Your task to perform on an android device: Open notification settings Image 0: 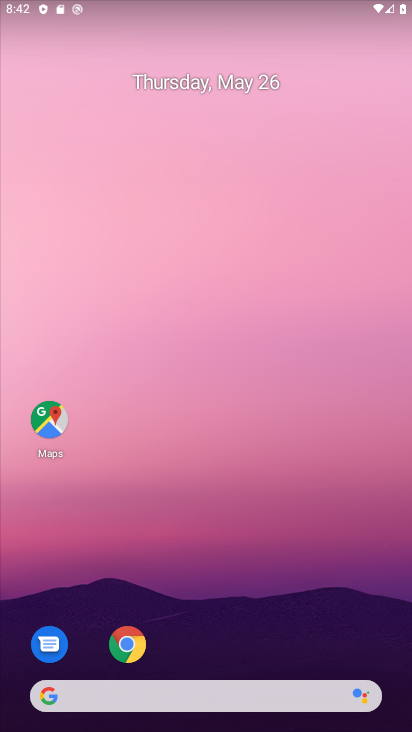
Step 0: drag from (338, 616) to (387, 123)
Your task to perform on an android device: Open notification settings Image 1: 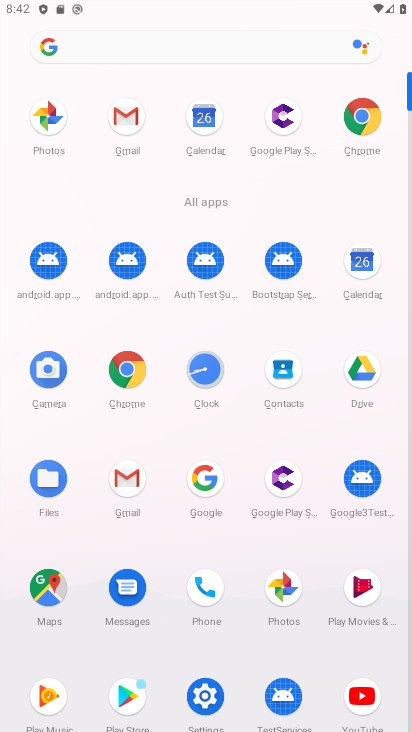
Step 1: click (193, 699)
Your task to perform on an android device: Open notification settings Image 2: 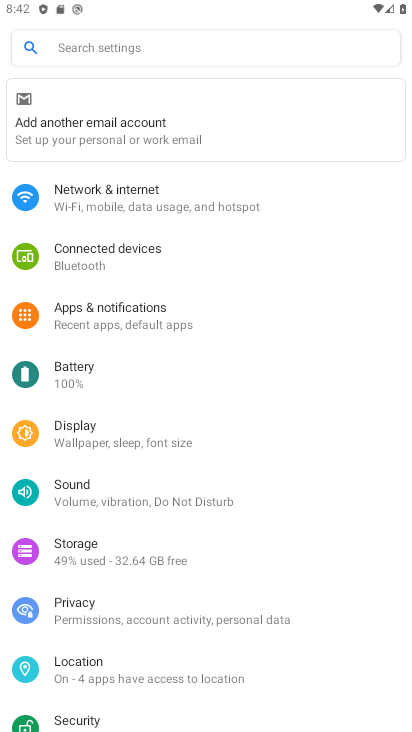
Step 2: click (146, 314)
Your task to perform on an android device: Open notification settings Image 3: 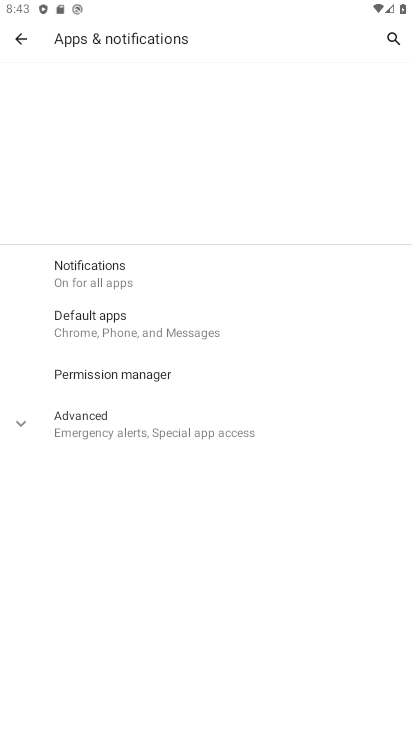
Step 3: click (146, 309)
Your task to perform on an android device: Open notification settings Image 4: 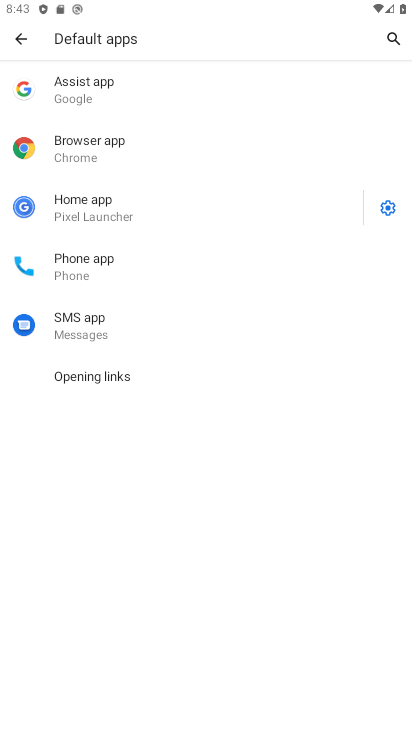
Step 4: click (16, 39)
Your task to perform on an android device: Open notification settings Image 5: 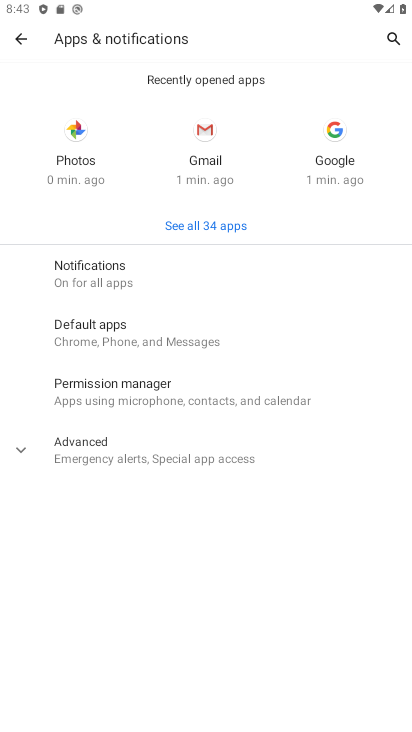
Step 5: task complete